Your task to perform on an android device: Open the map Image 0: 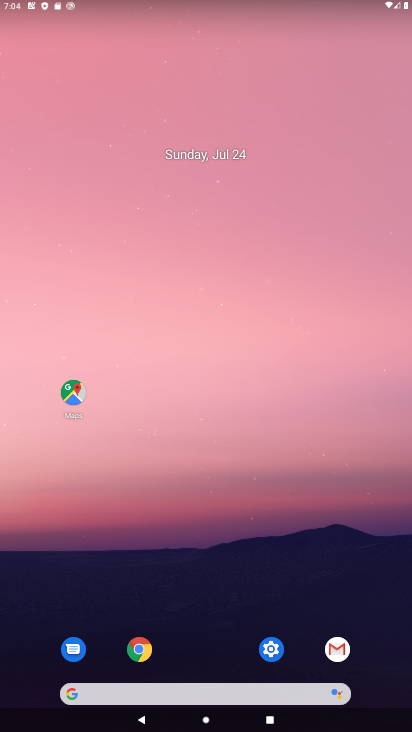
Step 0: press home button
Your task to perform on an android device: Open the map Image 1: 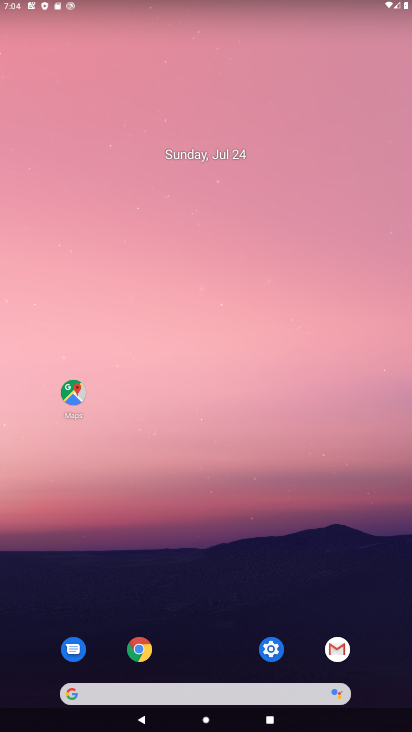
Step 1: click (68, 407)
Your task to perform on an android device: Open the map Image 2: 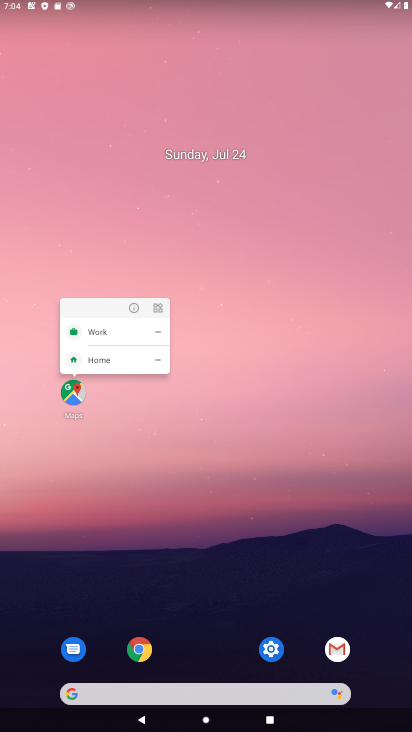
Step 2: click (73, 401)
Your task to perform on an android device: Open the map Image 3: 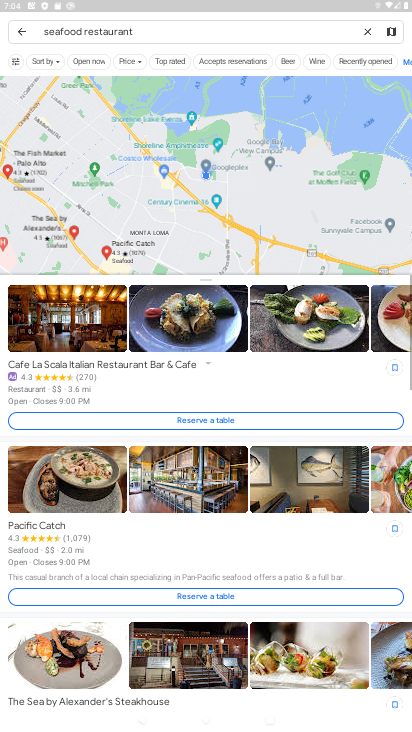
Step 3: click (25, 36)
Your task to perform on an android device: Open the map Image 4: 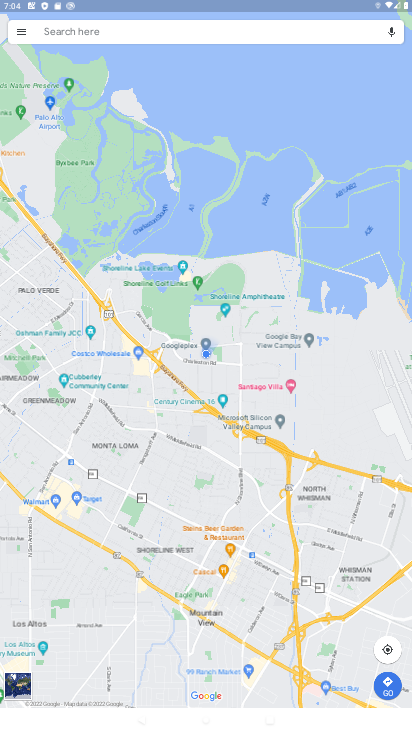
Step 4: task complete